Your task to perform on an android device: Do I have any events today? Image 0: 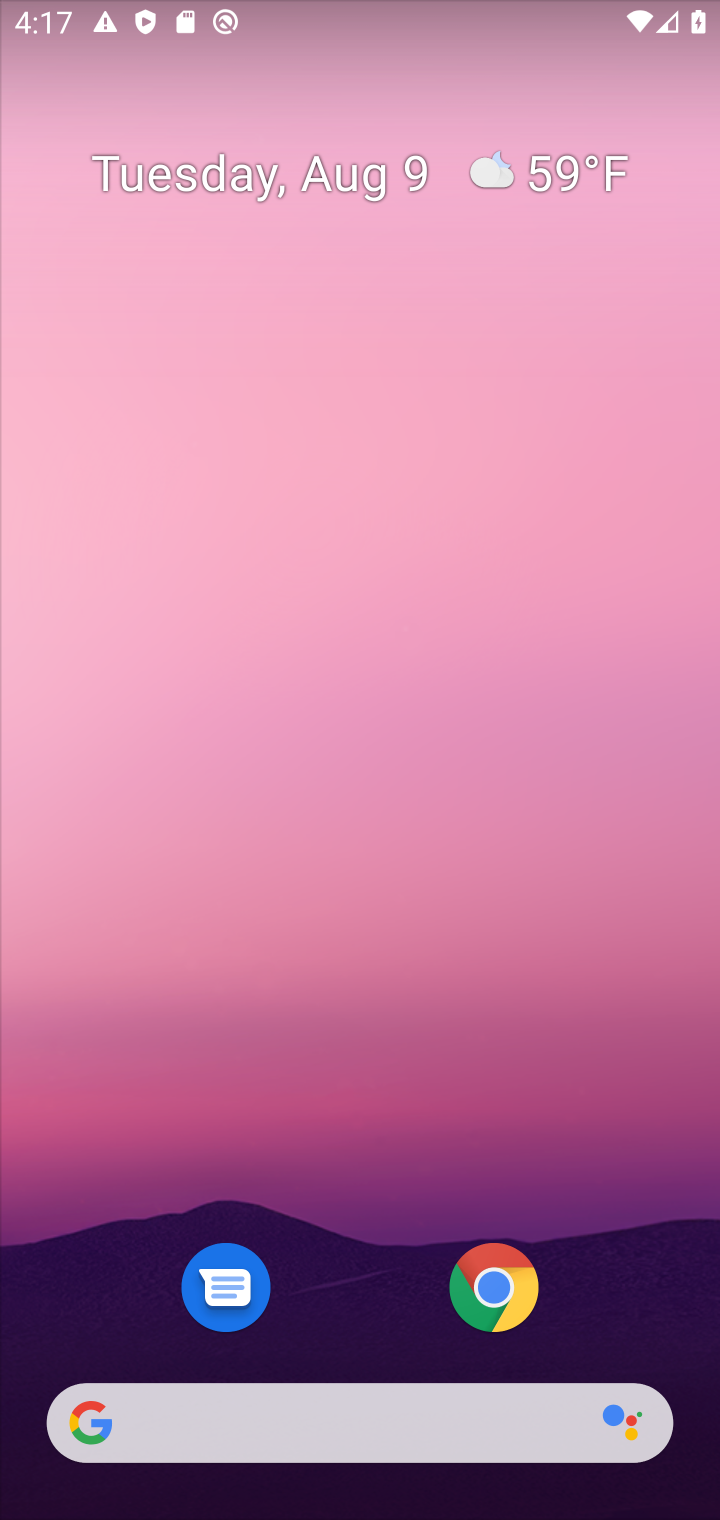
Step 0: click (336, 35)
Your task to perform on an android device: Do I have any events today? Image 1: 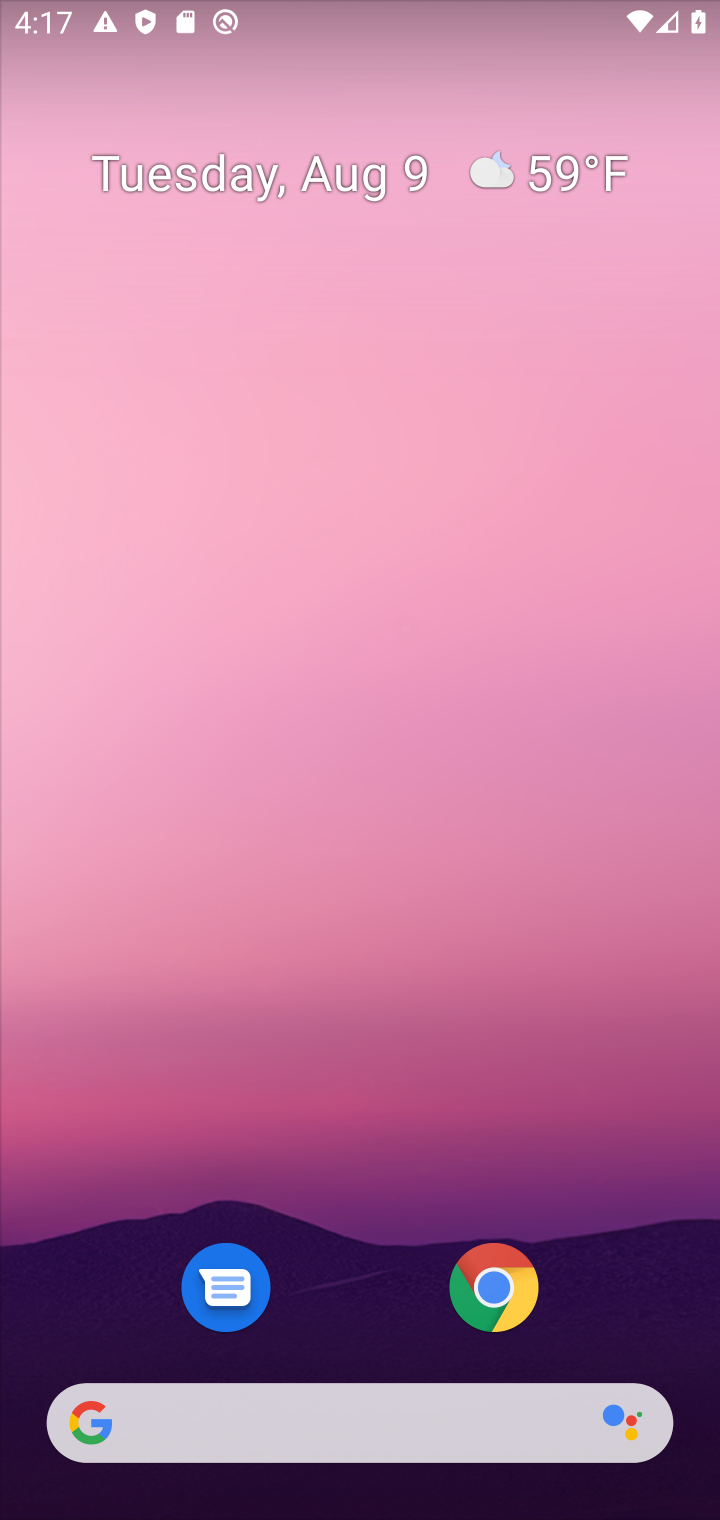
Step 1: drag from (311, 616) to (308, 496)
Your task to perform on an android device: Do I have any events today? Image 2: 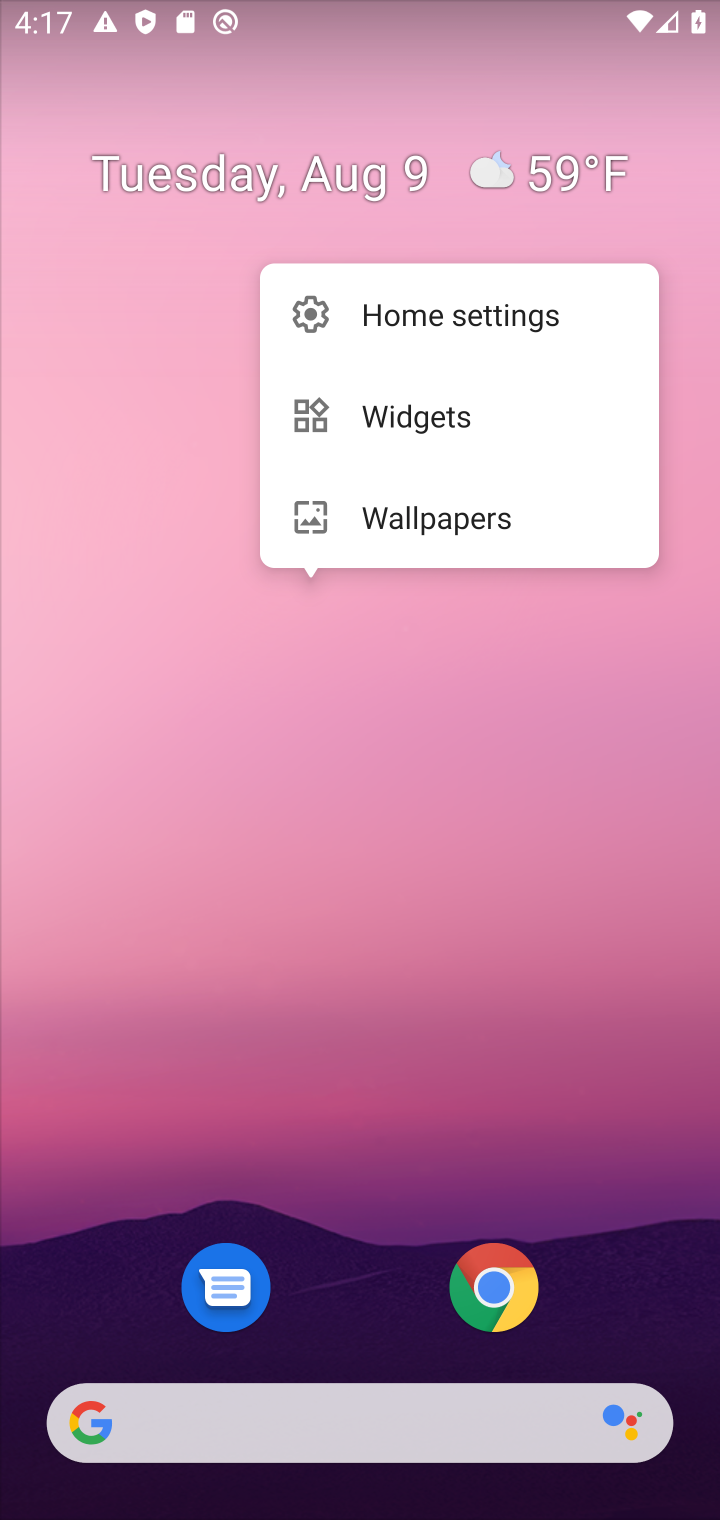
Step 2: drag from (385, 716) to (421, 179)
Your task to perform on an android device: Do I have any events today? Image 3: 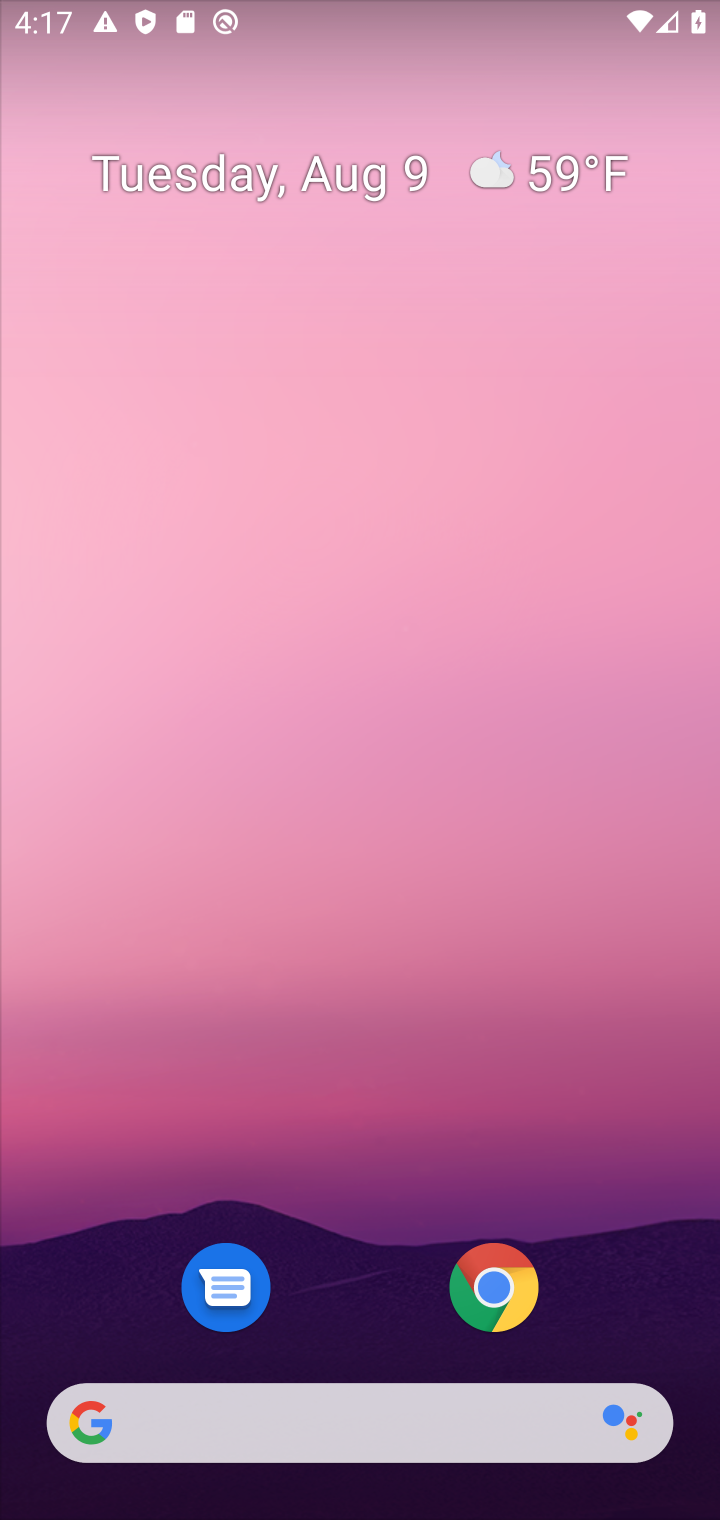
Step 3: click (418, 896)
Your task to perform on an android device: Do I have any events today? Image 4: 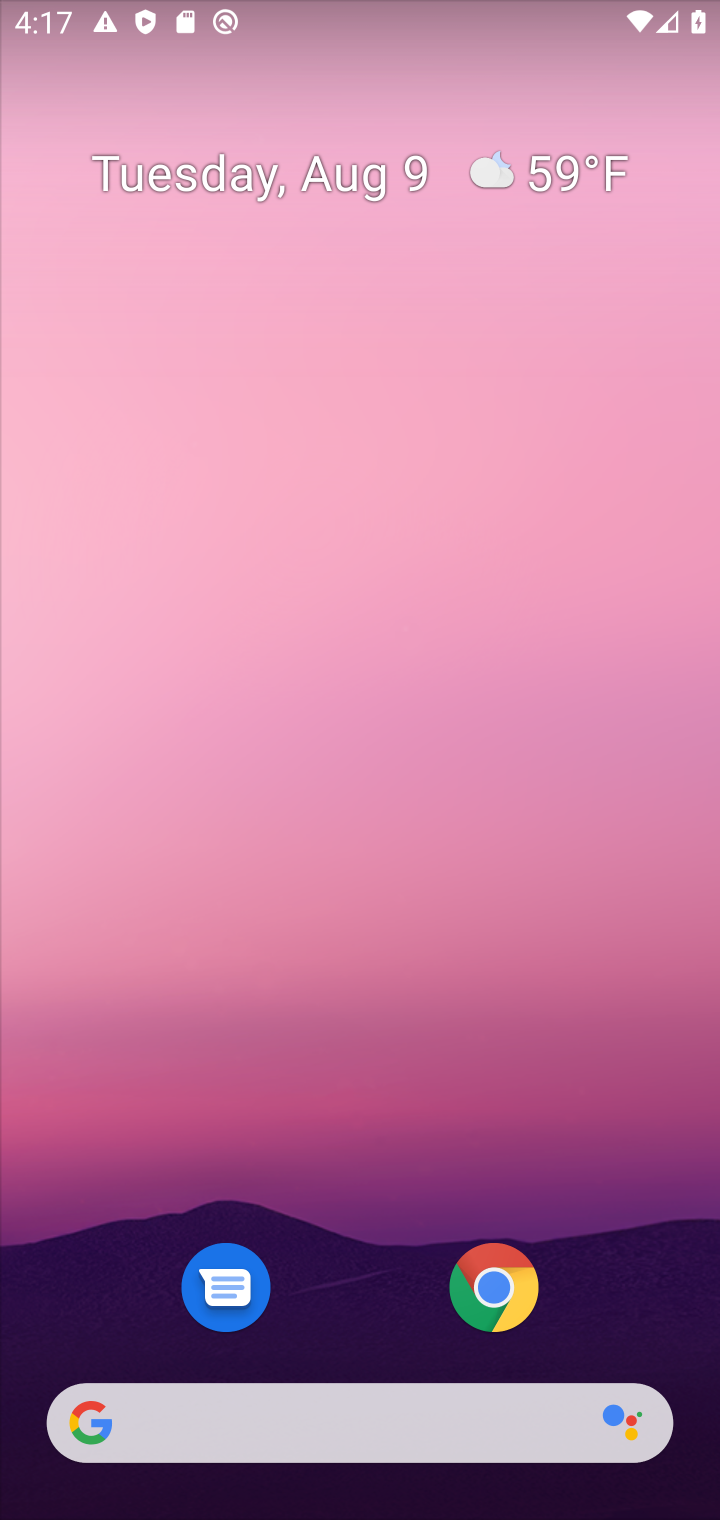
Step 4: drag from (330, 658) to (333, 266)
Your task to perform on an android device: Do I have any events today? Image 5: 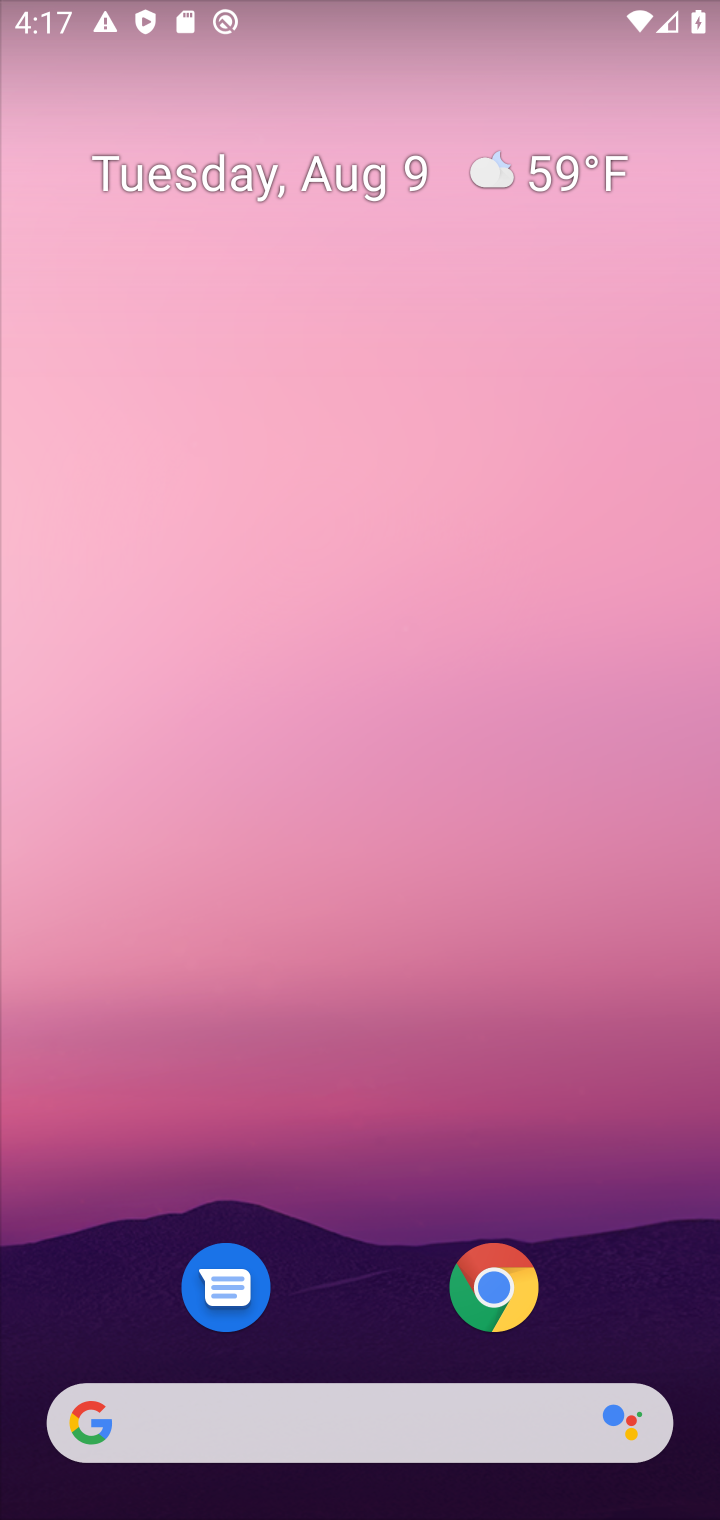
Step 5: drag from (366, 993) to (393, 74)
Your task to perform on an android device: Do I have any events today? Image 6: 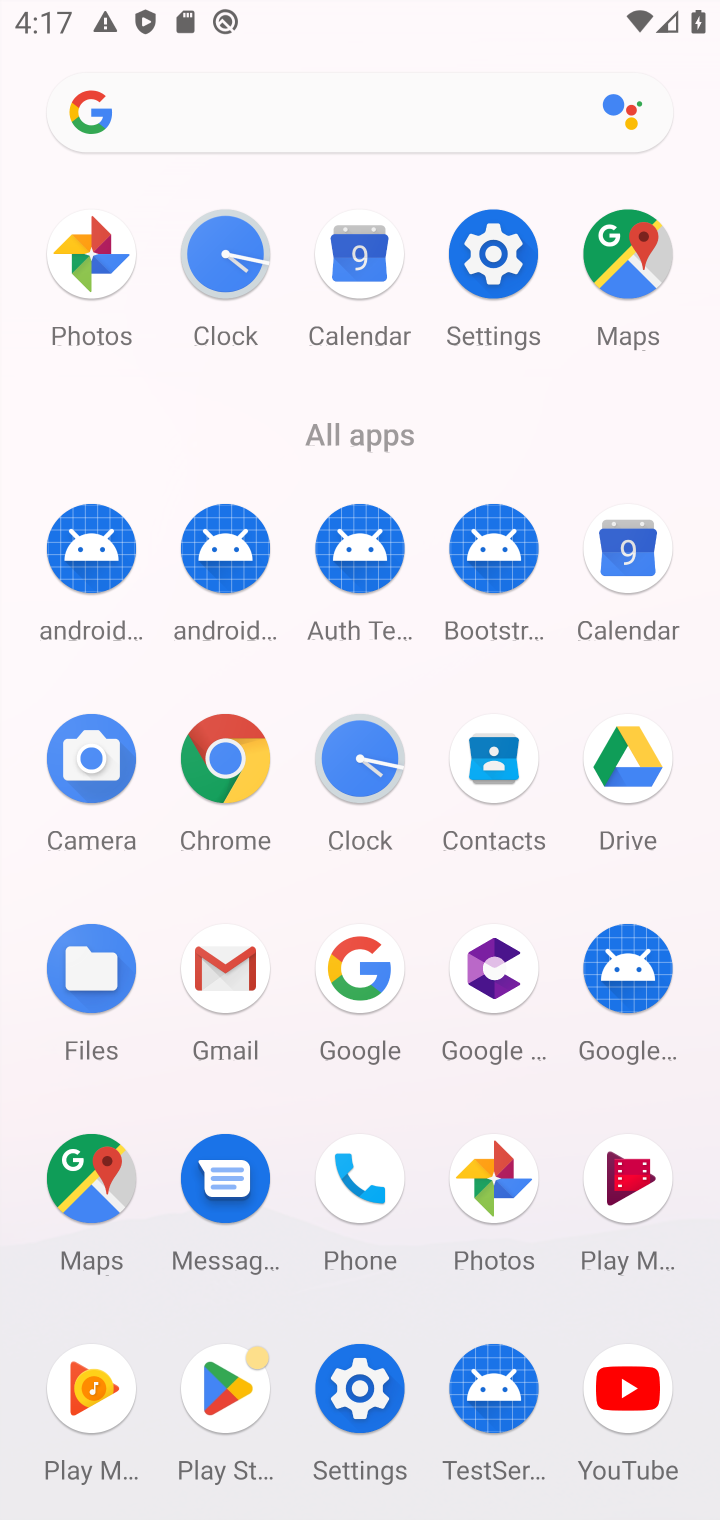
Step 6: click (624, 546)
Your task to perform on an android device: Do I have any events today? Image 7: 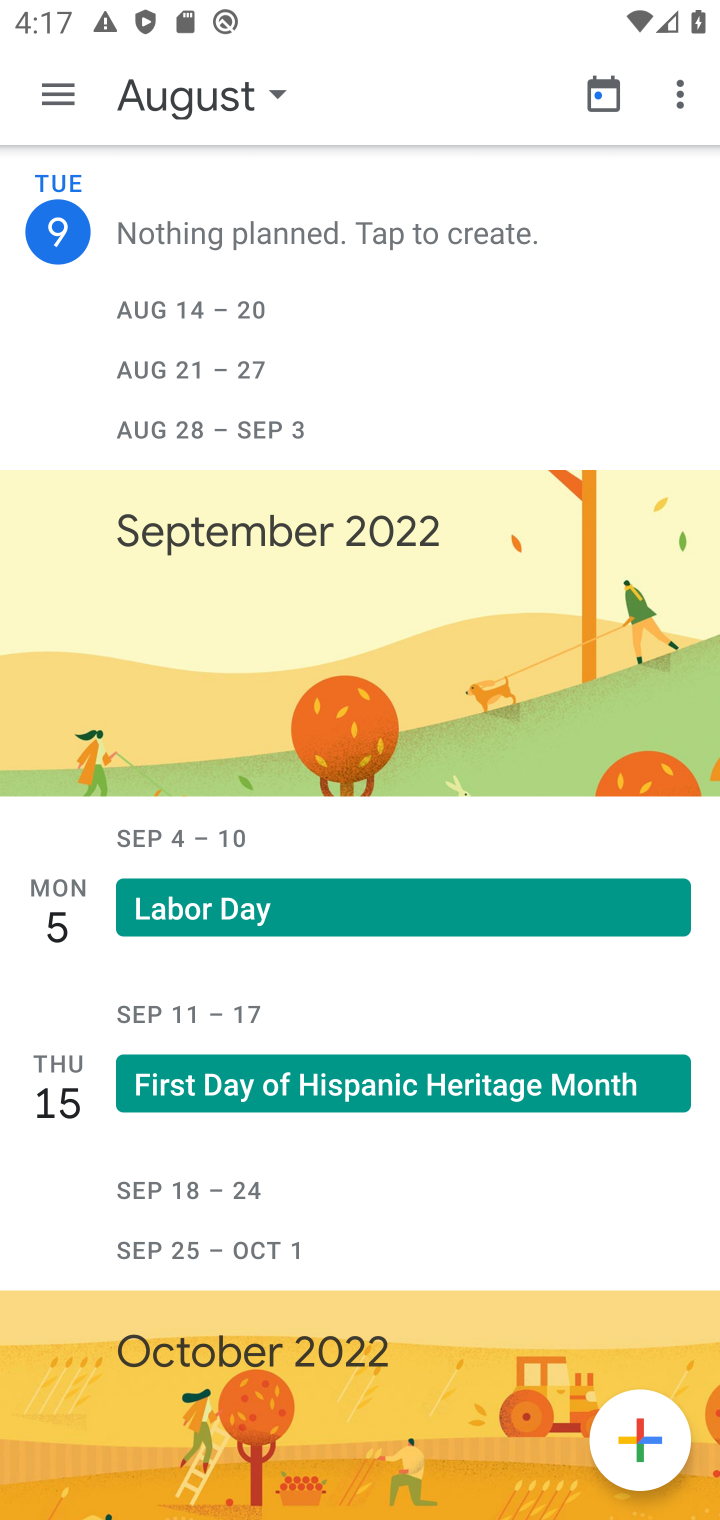
Step 7: task complete